Your task to perform on an android device: Send an email to 'tau.franklinbren.1654798856749@gmail.com', 'tau.doctorbrenna.1654798856749@gmail.com', 'tau.cooperbrenna.1654798856748@gmail.com' with subject: 'What is going on?' and body: 'Although it wasn't a pot of gold, Nancy was still enthralled at what she found at the end of the rainbow.' Image 0: 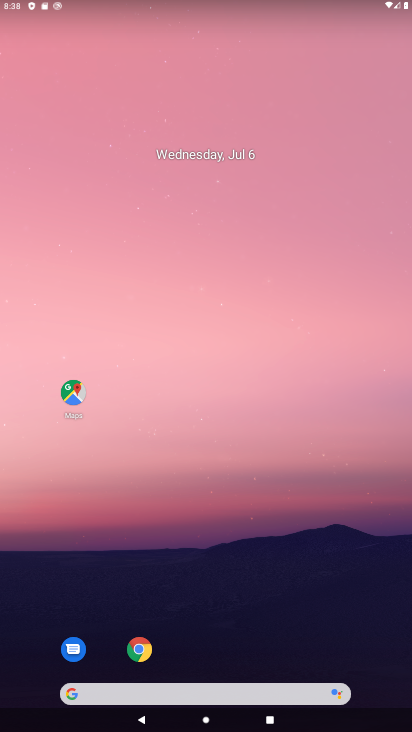
Step 0: drag from (329, 633) to (328, 69)
Your task to perform on an android device: Send an email to 'tau.franklinbren.1654798856749@gmail.com', 'tau.doctorbrenna.1654798856749@gmail.com', 'tau.cooperbrenna.1654798856748@gmail.com' with subject: 'What is going on?' and body: 'Although it wasn't a pot of gold, Nancy was still enthralled at what she found at the end of the rainbow.' Image 1: 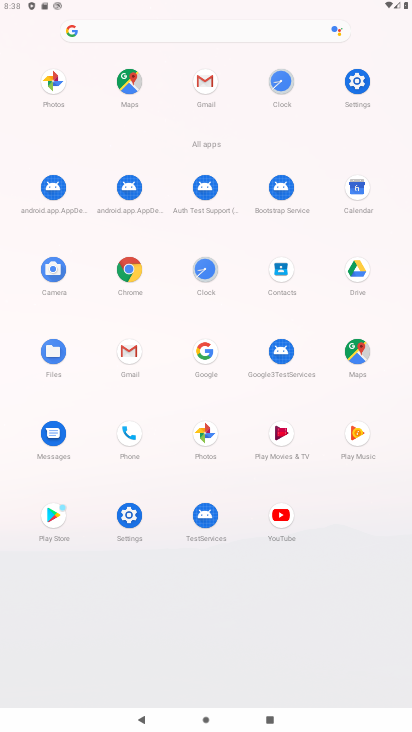
Step 1: click (207, 89)
Your task to perform on an android device: Send an email to 'tau.franklinbren.1654798856749@gmail.com', 'tau.doctorbrenna.1654798856749@gmail.com', 'tau.cooperbrenna.1654798856748@gmail.com' with subject: 'What is going on?' and body: 'Although it wasn't a pot of gold, Nancy was still enthralled at what she found at the end of the rainbow.' Image 2: 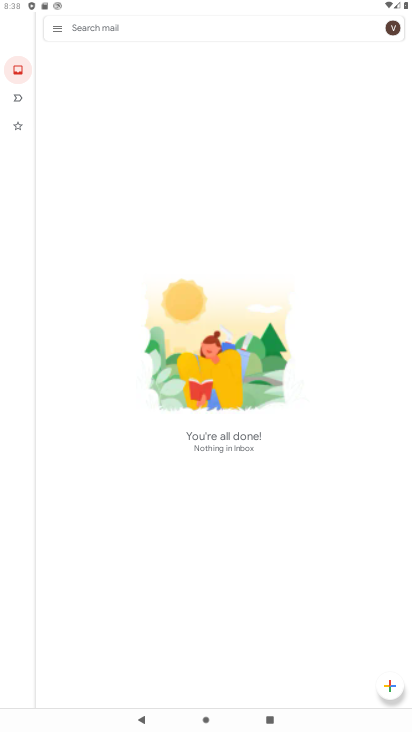
Step 2: click (82, 618)
Your task to perform on an android device: Send an email to 'tau.franklinbren.1654798856749@gmail.com', 'tau.doctorbrenna.1654798856749@gmail.com', 'tau.cooperbrenna.1654798856748@gmail.com' with subject: 'What is going on?' and body: 'Although it wasn't a pot of gold, Nancy was still enthralled at what she found at the end of the rainbow.' Image 3: 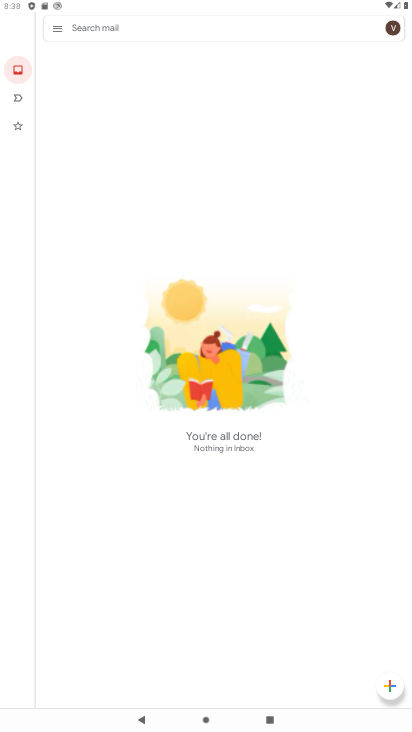
Step 3: click (396, 686)
Your task to perform on an android device: Send an email to 'tau.franklinbren.1654798856749@gmail.com', 'tau.doctorbrenna.1654798856749@gmail.com', 'tau.cooperbrenna.1654798856748@gmail.com' with subject: 'What is going on?' and body: 'Although it wasn't a pot of gold, Nancy was still enthralled at what she found at the end of the rainbow.' Image 4: 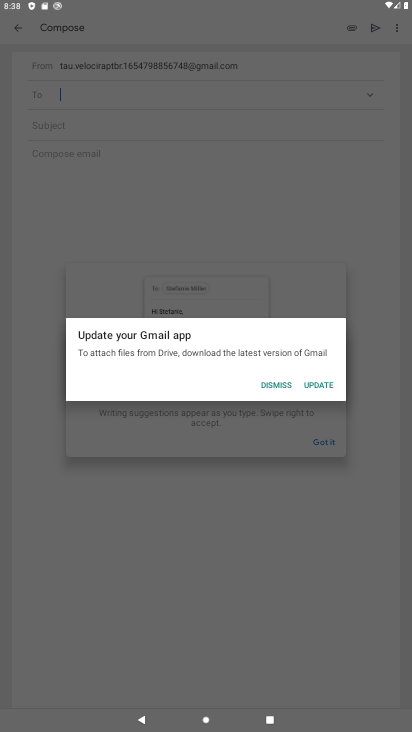
Step 4: click (282, 395)
Your task to perform on an android device: Send an email to 'tau.franklinbren.1654798856749@gmail.com', 'tau.doctorbrenna.1654798856749@gmail.com', 'tau.cooperbrenna.1654798856748@gmail.com' with subject: 'What is going on?' and body: 'Although it wasn't a pot of gold, Nancy was still enthralled at what she found at the end of the rainbow.' Image 5: 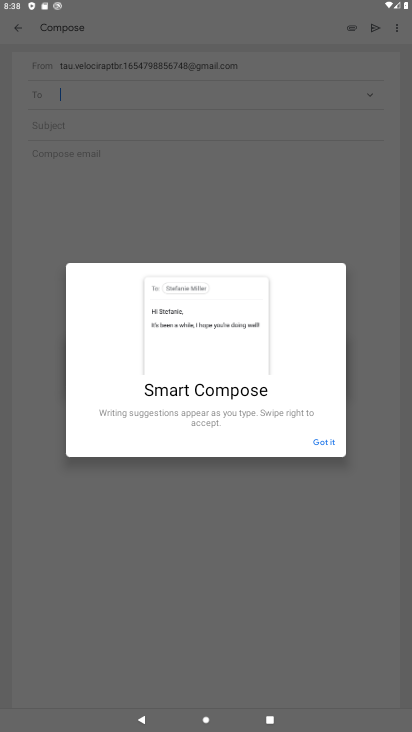
Step 5: click (326, 445)
Your task to perform on an android device: Send an email to 'tau.franklinbren.1654798856749@gmail.com', 'tau.doctorbrenna.1654798856749@gmail.com', 'tau.cooperbrenna.1654798856748@gmail.com' with subject: 'What is going on?' and body: 'Although it wasn't a pot of gold, Nancy was still enthralled at what she found at the end of the rainbow.' Image 6: 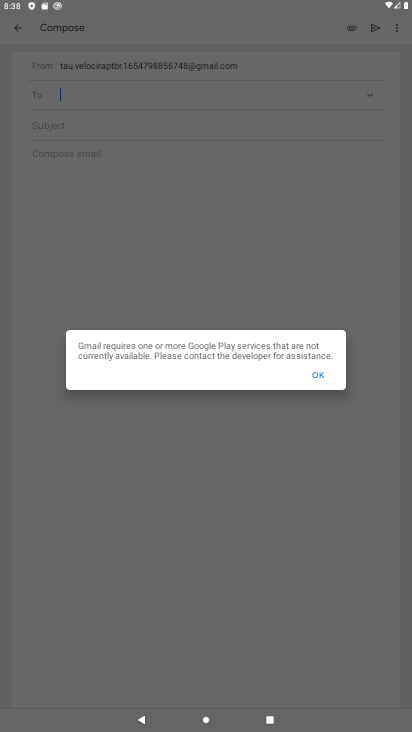
Step 6: click (325, 384)
Your task to perform on an android device: Send an email to 'tau.franklinbren.1654798856749@gmail.com', 'tau.doctorbrenna.1654798856749@gmail.com', 'tau.cooperbrenna.1654798856748@gmail.com' with subject: 'What is going on?' and body: 'Although it wasn't a pot of gold, Nancy was still enthralled at what she found at the end of the rainbow.' Image 7: 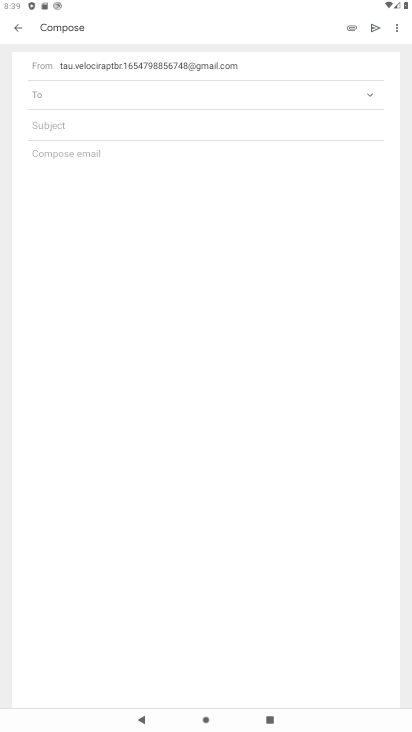
Step 7: drag from (71, 723) to (200, 686)
Your task to perform on an android device: Send an email to 'tau.franklinbren.1654798856749@gmail.com', 'tau.doctorbrenna.1654798856749@gmail.com', 'tau.cooperbrenna.1654798856748@gmail.com' with subject: 'What is going on?' and body: 'Although it wasn't a pot of gold, Nancy was still enthralled at what she found at the end of the rainbow.' Image 8: 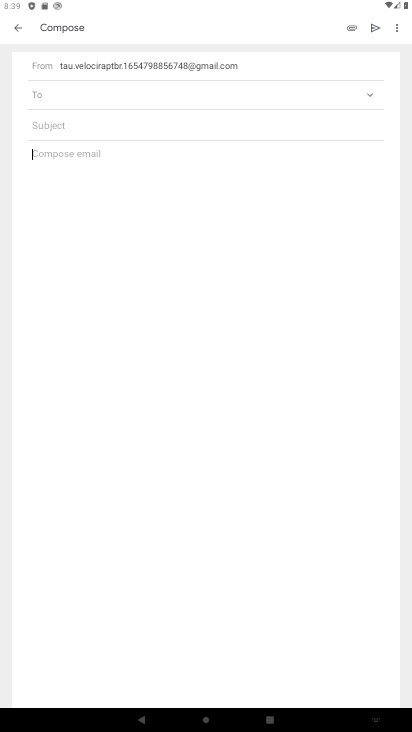
Step 8: type "tau.franklinbren.1654798856749@gmail.com"
Your task to perform on an android device: Send an email to 'tau.franklinbren.1654798856749@gmail.com', 'tau.doctorbrenna.1654798856749@gmail.com', 'tau.cooperbrenna.1654798856748@gmail.com' with subject: 'What is going on?' and body: 'Although it wasn't a pot of gold, Nancy was still enthralled at what she found at the end of the rainbow.' Image 9: 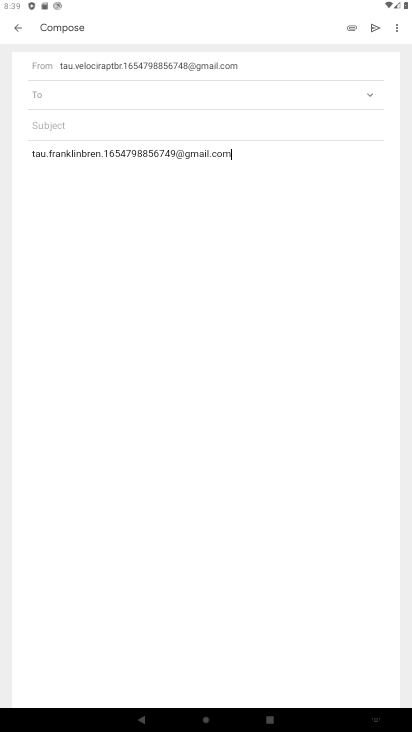
Step 9: click (21, 29)
Your task to perform on an android device: Send an email to 'tau.franklinbren.1654798856749@gmail.com', 'tau.doctorbrenna.1654798856749@gmail.com', 'tau.cooperbrenna.1654798856748@gmail.com' with subject: 'What is going on?' and body: 'Although it wasn't a pot of gold, Nancy was still enthralled at what she found at the end of the rainbow.' Image 10: 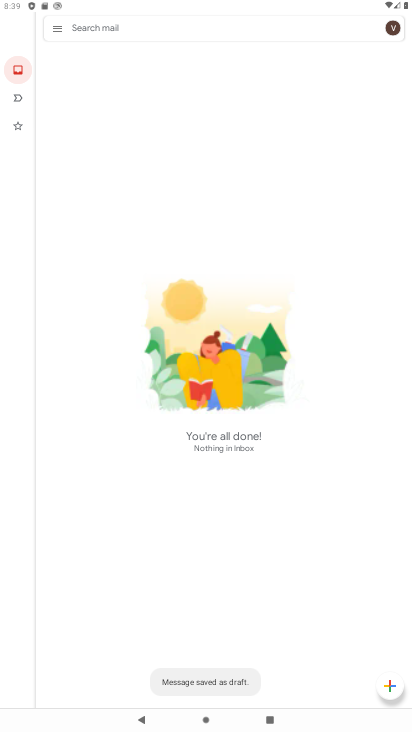
Step 10: click (372, 677)
Your task to perform on an android device: Send an email to 'tau.franklinbren.1654798856749@gmail.com', 'tau.doctorbrenna.1654798856749@gmail.com', 'tau.cooperbrenna.1654798856748@gmail.com' with subject: 'What is going on?' and body: 'Although it wasn't a pot of gold, Nancy was still enthralled at what she found at the end of the rainbow.' Image 11: 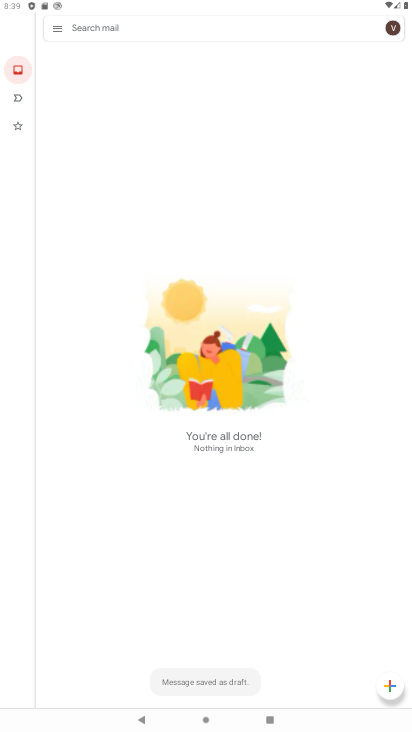
Step 11: click (386, 687)
Your task to perform on an android device: Send an email to 'tau.franklinbren.1654798856749@gmail.com', 'tau.doctorbrenna.1654798856749@gmail.com', 'tau.cooperbrenna.1654798856748@gmail.com' with subject: 'What is going on?' and body: 'Although it wasn't a pot of gold, Nancy was still enthralled at what she found at the end of the rainbow.' Image 12: 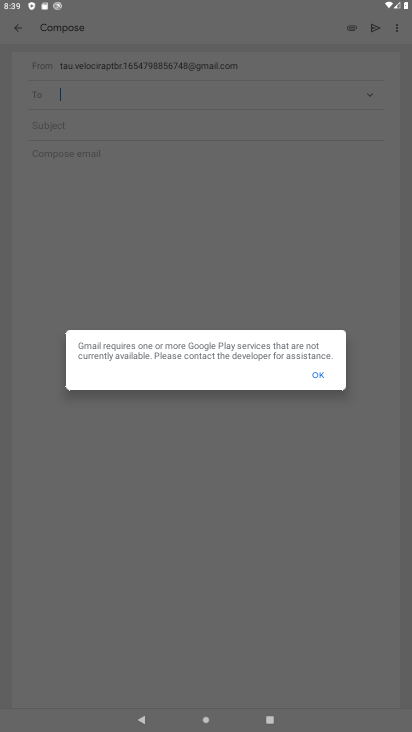
Step 12: click (317, 370)
Your task to perform on an android device: Send an email to 'tau.franklinbren.1654798856749@gmail.com', 'tau.doctorbrenna.1654798856749@gmail.com', 'tau.cooperbrenna.1654798856748@gmail.com' with subject: 'What is going on?' and body: 'Although it wasn't a pot of gold, Nancy was still enthralled at what she found at the end of the rainbow.' Image 13: 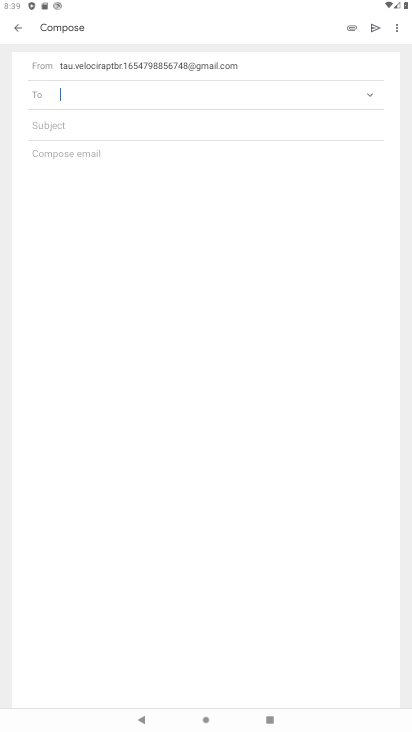
Step 13: click (180, 86)
Your task to perform on an android device: Send an email to 'tau.franklinbren.1654798856749@gmail.com', 'tau.doctorbrenna.1654798856749@gmail.com', 'tau.cooperbrenna.1654798856748@gmail.com' with subject: 'What is going on?' and body: 'Although it wasn't a pot of gold, Nancy was still enthralled at what she found at the end of the rainbow.' Image 14: 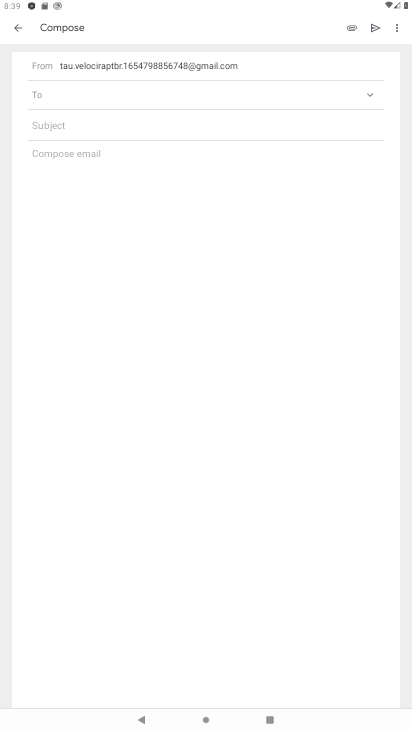
Step 14: click (180, 86)
Your task to perform on an android device: Send an email to 'tau.franklinbren.1654798856749@gmail.com', 'tau.doctorbrenna.1654798856749@gmail.com', 'tau.cooperbrenna.1654798856748@gmail.com' with subject: 'What is going on?' and body: 'Although it wasn't a pot of gold, Nancy was still enthralled at what she found at the end of the rainbow.' Image 15: 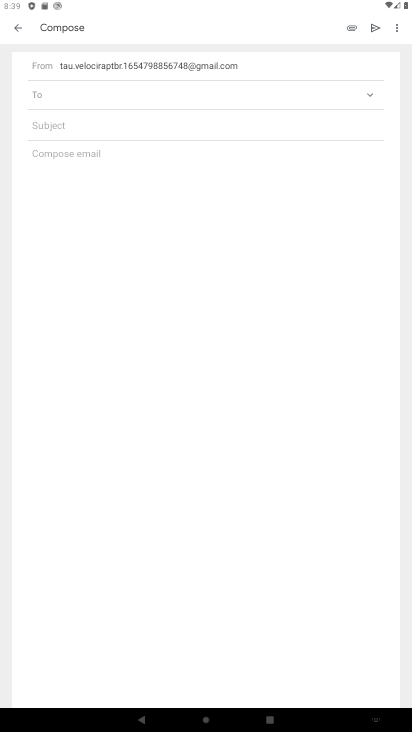
Step 15: type "tau.franklinbren.1654798856749@gmail.com"
Your task to perform on an android device: Send an email to 'tau.franklinbren.1654798856749@gmail.com', 'tau.doctorbrenna.1654798856749@gmail.com', 'tau.cooperbrenna.1654798856748@gmail.com' with subject: 'What is going on?' and body: 'Although it wasn't a pot of gold, Nancy was still enthralled at what she found at the end of the rainbow.' Image 16: 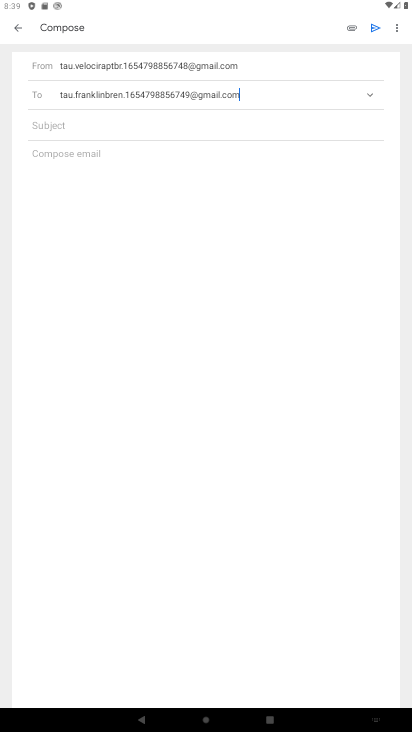
Step 16: type ""
Your task to perform on an android device: Send an email to 'tau.franklinbren.1654798856749@gmail.com', 'tau.doctorbrenna.1654798856749@gmail.com', 'tau.cooperbrenna.1654798856748@gmail.com' with subject: 'What is going on?' and body: 'Although it wasn't a pot of gold, Nancy was still enthralled at what she found at the end of the rainbow.' Image 17: 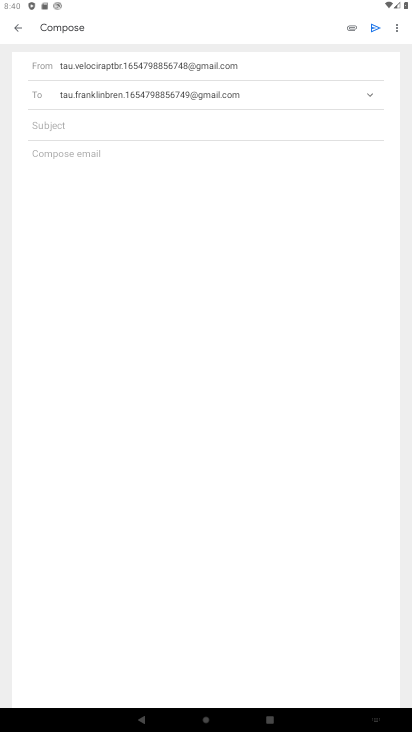
Step 17: click (368, 89)
Your task to perform on an android device: Send an email to 'tau.franklinbren.1654798856749@gmail.com', 'tau.doctorbrenna.1654798856749@gmail.com', 'tau.cooperbrenna.1654798856748@gmail.com' with subject: 'What is going on?' and body: 'Although it wasn't a pot of gold, Nancy was still enthralled at what she found at the end of the rainbow.' Image 18: 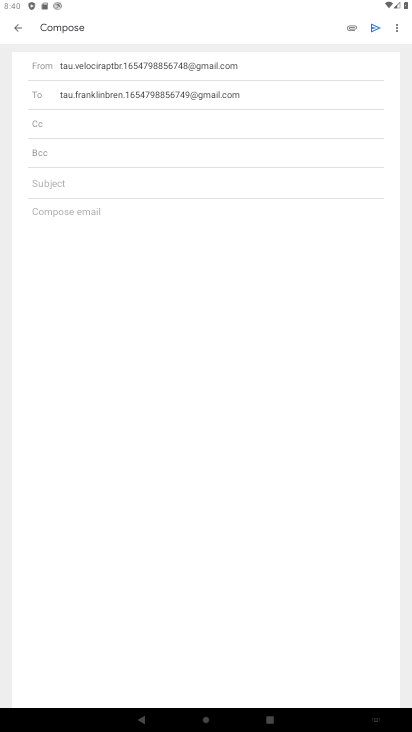
Step 18: click (327, 123)
Your task to perform on an android device: Send an email to 'tau.franklinbren.1654798856749@gmail.com', 'tau.doctorbrenna.1654798856749@gmail.com', 'tau.cooperbrenna.1654798856748@gmail.com' with subject: 'What is going on?' and body: 'Although it wasn't a pot of gold, Nancy was still enthralled at what she found at the end of the rainbow.' Image 19: 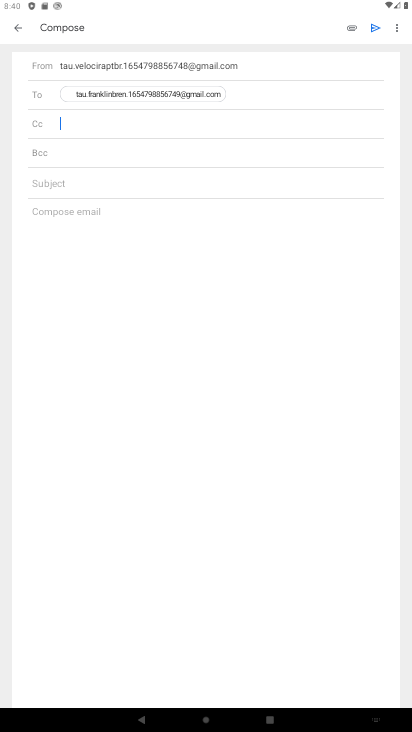
Step 19: type "tau.doctorbrenna.1654798856749@gmail.com"
Your task to perform on an android device: Send an email to 'tau.franklinbren.1654798856749@gmail.com', 'tau.doctorbrenna.1654798856749@gmail.com', 'tau.cooperbrenna.1654798856748@gmail.com' with subject: 'What is going on?' and body: 'Although it wasn't a pot of gold, Nancy was still enthralled at what she found at the end of the rainbow.' Image 20: 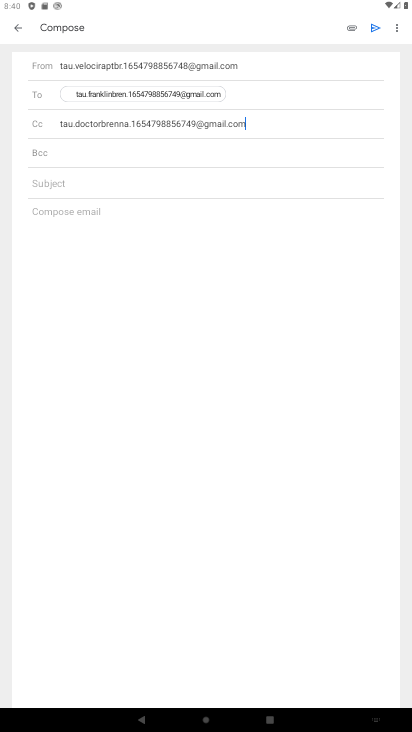
Step 20: type ""
Your task to perform on an android device: Send an email to 'tau.franklinbren.1654798856749@gmail.com', 'tau.doctorbrenna.1654798856749@gmail.com', 'tau.cooperbrenna.1654798856748@gmail.com' with subject: 'What is going on?' and body: 'Although it wasn't a pot of gold, Nancy was still enthralled at what she found at the end of the rainbow.' Image 21: 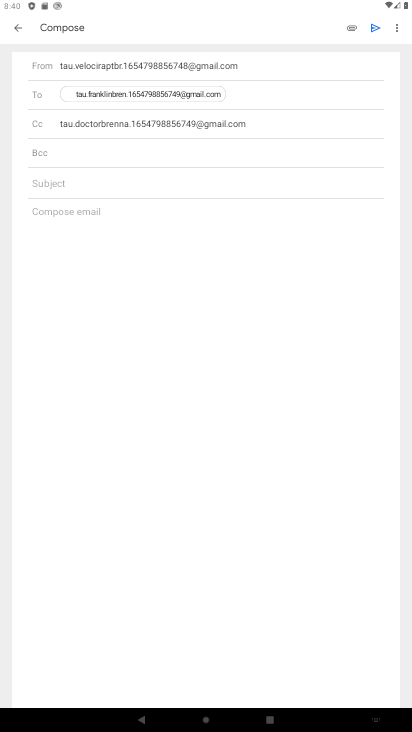
Step 21: click (105, 154)
Your task to perform on an android device: Send an email to 'tau.franklinbren.1654798856749@gmail.com', 'tau.doctorbrenna.1654798856749@gmail.com', 'tau.cooperbrenna.1654798856748@gmail.com' with subject: 'What is going on?' and body: 'Although it wasn't a pot of gold, Nancy was still enthralled at what she found at the end of the rainbow.' Image 22: 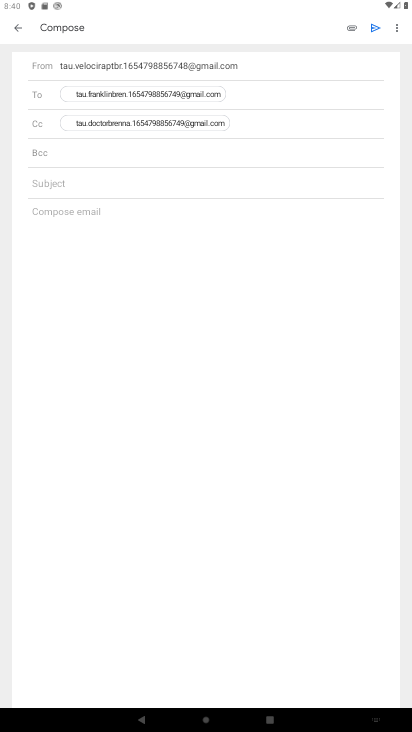
Step 22: type "tau.cooperbrenna.1654798856748@gmail.com"
Your task to perform on an android device: Send an email to 'tau.franklinbren.1654798856749@gmail.com', 'tau.doctorbrenna.1654798856749@gmail.com', 'tau.cooperbrenna.1654798856748@gmail.com' with subject: 'What is going on?' and body: 'Although it wasn't a pot of gold, Nancy was still enthralled at what she found at the end of the rainbow.' Image 23: 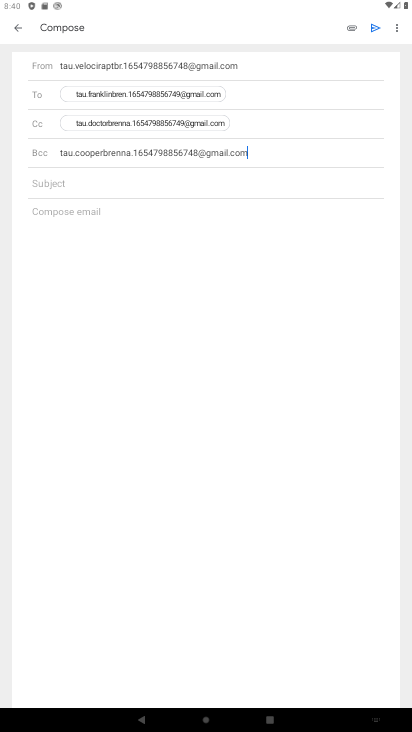
Step 23: type ""
Your task to perform on an android device: Send an email to 'tau.franklinbren.1654798856749@gmail.com', 'tau.doctorbrenna.1654798856749@gmail.com', 'tau.cooperbrenna.1654798856748@gmail.com' with subject: 'What is going on?' and body: 'Although it wasn't a pot of gold, Nancy was still enthralled at what she found at the end of the rainbow.' Image 24: 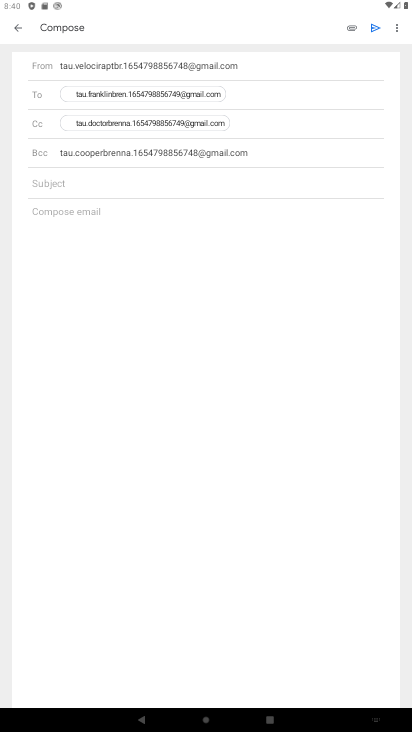
Step 24: click (107, 186)
Your task to perform on an android device: Send an email to 'tau.franklinbren.1654798856749@gmail.com', 'tau.doctorbrenna.1654798856749@gmail.com', 'tau.cooperbrenna.1654798856748@gmail.com' with subject: 'What is going on?' and body: 'Although it wasn't a pot of gold, Nancy was still enthralled at what she found at the end of the rainbow.' Image 25: 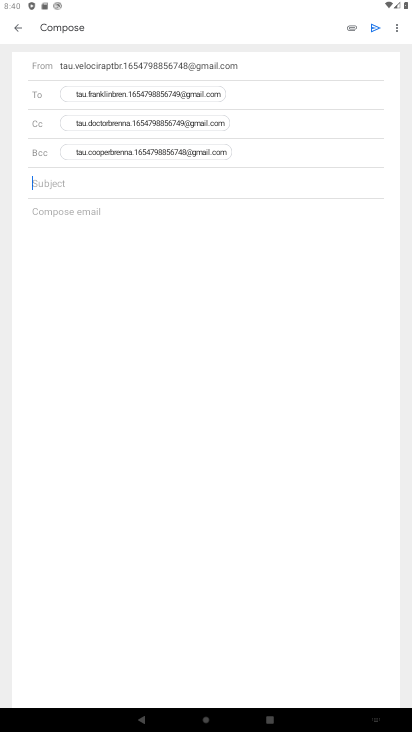
Step 25: type "What is going on?"
Your task to perform on an android device: Send an email to 'tau.franklinbren.1654798856749@gmail.com', 'tau.doctorbrenna.1654798856749@gmail.com', 'tau.cooperbrenna.1654798856748@gmail.com' with subject: 'What is going on?' and body: 'Although it wasn't a pot of gold, Nancy was still enthralled at what she found at the end of the rainbow.' Image 26: 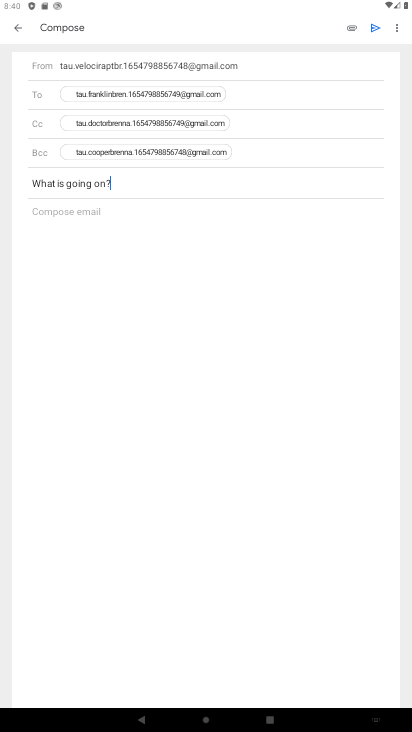
Step 26: type ""
Your task to perform on an android device: Send an email to 'tau.franklinbren.1654798856749@gmail.com', 'tau.doctorbrenna.1654798856749@gmail.com', 'tau.cooperbrenna.1654798856748@gmail.com' with subject: 'What is going on?' and body: 'Although it wasn't a pot of gold, Nancy was still enthralled at what she found at the end of the rainbow.' Image 27: 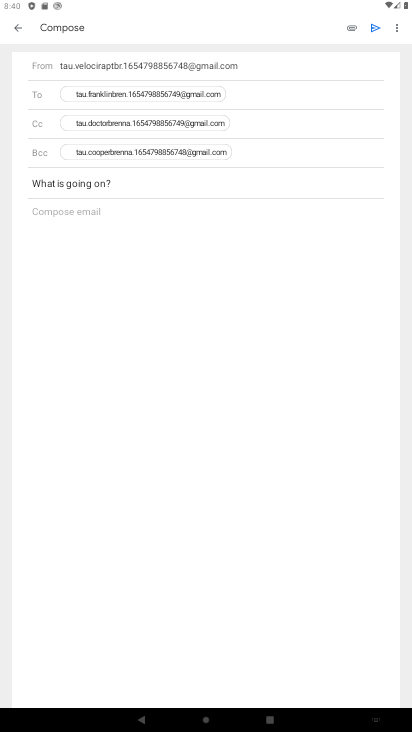
Step 27: type "Although it wasn't a pot of gold, Nancy was still enthralled at what she found at the end of the rainbow.'"
Your task to perform on an android device: Send an email to 'tau.franklinbren.1654798856749@gmail.com', 'tau.doctorbrenna.1654798856749@gmail.com', 'tau.cooperbrenna.1654798856748@gmail.com' with subject: 'What is going on?' and body: 'Although it wasn't a pot of gold, Nancy was still enthralled at what she found at the end of the rainbow.' Image 28: 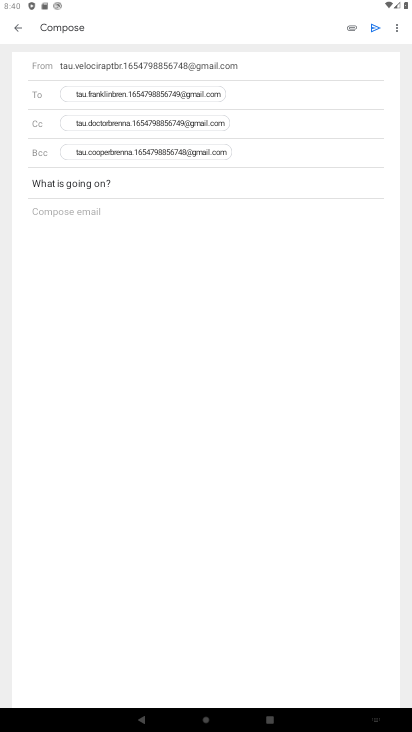
Step 28: click (92, 342)
Your task to perform on an android device: Send an email to 'tau.franklinbren.1654798856749@gmail.com', 'tau.doctorbrenna.1654798856749@gmail.com', 'tau.cooperbrenna.1654798856748@gmail.com' with subject: 'What is going on?' and body: 'Although it wasn't a pot of gold, Nancy was still enthralled at what she found at the end of the rainbow.' Image 29: 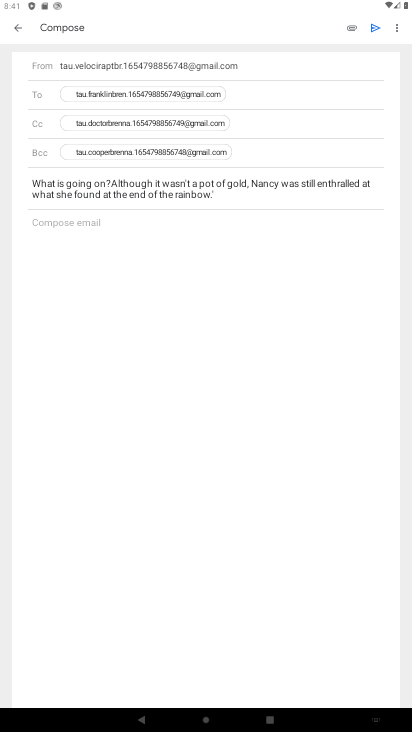
Step 29: click (89, 212)
Your task to perform on an android device: Send an email to 'tau.franklinbren.1654798856749@gmail.com', 'tau.doctorbrenna.1654798856749@gmail.com', 'tau.cooperbrenna.1654798856748@gmail.com' with subject: 'What is going on?' and body: 'Although it wasn't a pot of gold, Nancy was still enthralled at what she found at the end of the rainbow.' Image 30: 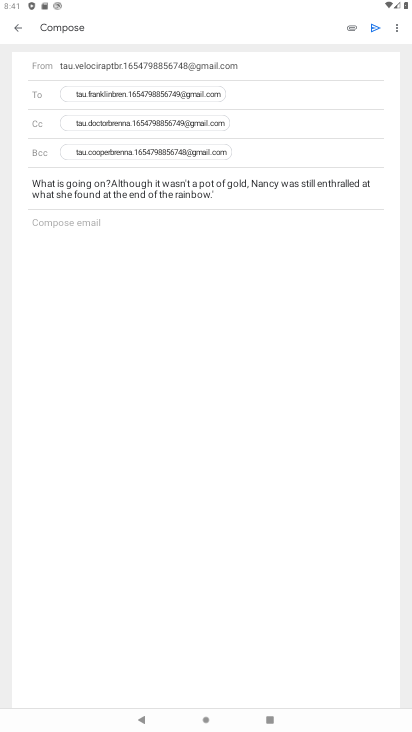
Step 30: drag from (111, 177) to (187, 226)
Your task to perform on an android device: Send an email to 'tau.franklinbren.1654798856749@gmail.com', 'tau.doctorbrenna.1654798856749@gmail.com', 'tau.cooperbrenna.1654798856748@gmail.com' with subject: 'What is going on?' and body: 'Although it wasn't a pot of gold, Nancy was still enthralled at what she found at the end of the rainbow.' Image 31: 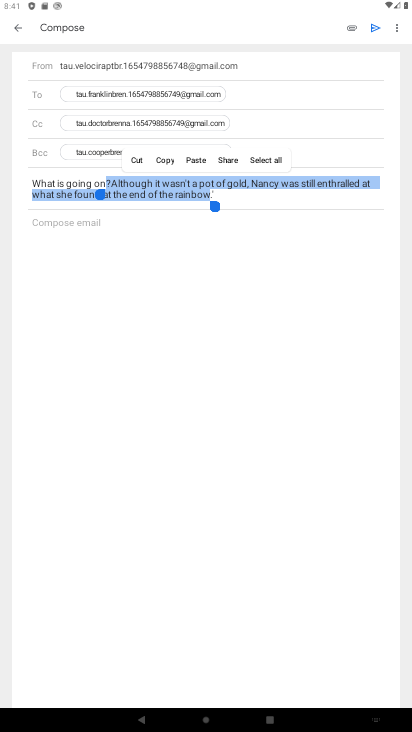
Step 31: click (134, 159)
Your task to perform on an android device: Send an email to 'tau.franklinbren.1654798856749@gmail.com', 'tau.doctorbrenna.1654798856749@gmail.com', 'tau.cooperbrenna.1654798856748@gmail.com' with subject: 'What is going on?' and body: 'Although it wasn't a pot of gold, Nancy was still enthralled at what she found at the end of the rainbow.' Image 32: 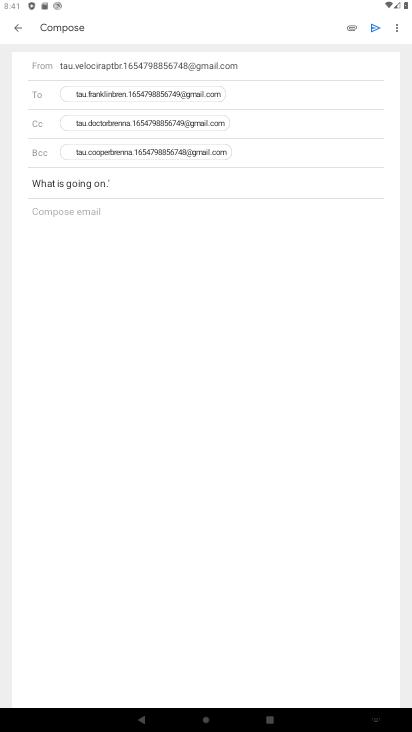
Step 32: click (105, 177)
Your task to perform on an android device: Send an email to 'tau.franklinbren.1654798856749@gmail.com', 'tau.doctorbrenna.1654798856749@gmail.com', 'tau.cooperbrenna.1654798856748@gmail.com' with subject: 'What is going on?' and body: 'Although it wasn't a pot of gold, Nancy was still enthralled at what she found at the end of the rainbow.' Image 33: 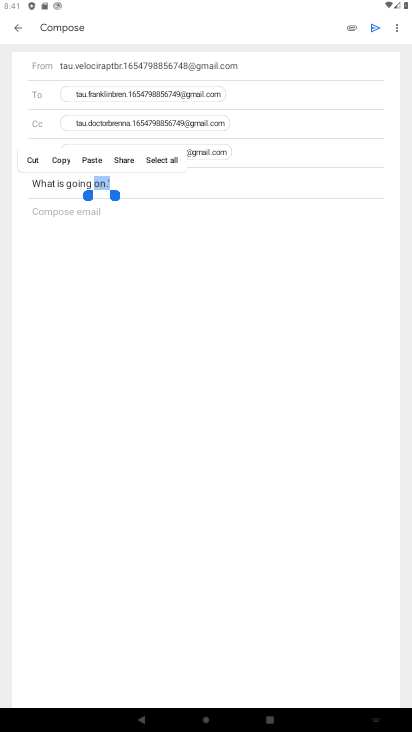
Step 33: click (33, 156)
Your task to perform on an android device: Send an email to 'tau.franklinbren.1654798856749@gmail.com', 'tau.doctorbrenna.1654798856749@gmail.com', 'tau.cooperbrenna.1654798856748@gmail.com' with subject: 'What is going on?' and body: 'Although it wasn't a pot of gold, Nancy was still enthralled at what she found at the end of the rainbow.' Image 34: 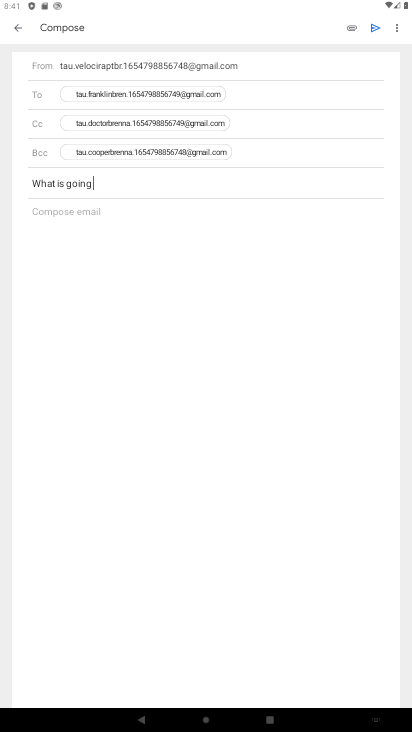
Step 34: type " on"
Your task to perform on an android device: Send an email to 'tau.franklinbren.1654798856749@gmail.com', 'tau.doctorbrenna.1654798856749@gmail.com', 'tau.cooperbrenna.1654798856748@gmail.com' with subject: 'What is going on?' and body: 'Although it wasn't a pot of gold, Nancy was still enthralled at what she found at the end of the rainbow.' Image 35: 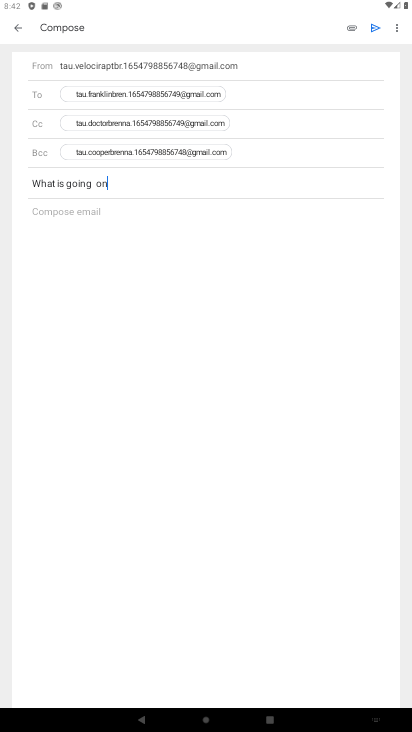
Step 35: type "?"
Your task to perform on an android device: Send an email to 'tau.franklinbren.1654798856749@gmail.com', 'tau.doctorbrenna.1654798856749@gmail.com', 'tau.cooperbrenna.1654798856748@gmail.com' with subject: 'What is going on?' and body: 'Although it wasn't a pot of gold, Nancy was still enthralled at what she found at the end of the rainbow.' Image 36: 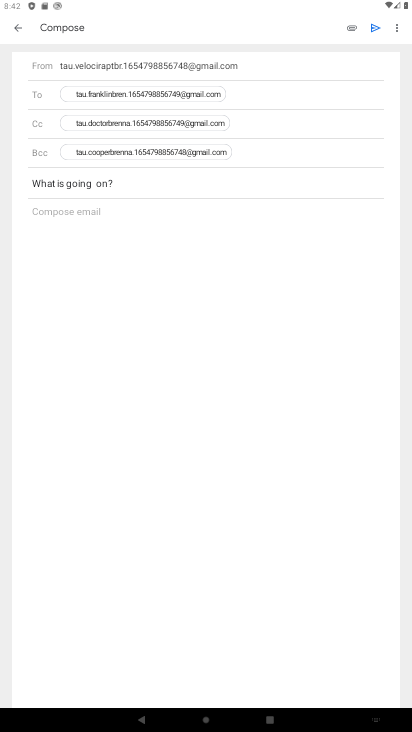
Step 36: click (175, 243)
Your task to perform on an android device: Send an email to 'tau.franklinbren.1654798856749@gmail.com', 'tau.doctorbrenna.1654798856749@gmail.com', 'tau.cooperbrenna.1654798856748@gmail.com' with subject: 'What is going on?' and body: 'Although it wasn't a pot of gold, Nancy was still enthralled at what she found at the end of the rainbow.' Image 37: 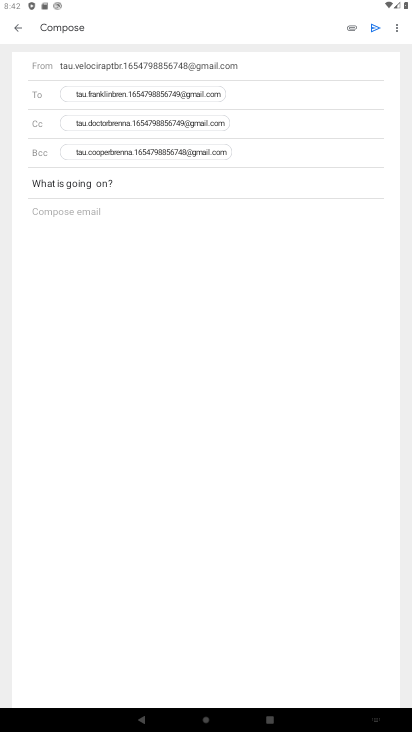
Step 37: click (175, 243)
Your task to perform on an android device: Send an email to 'tau.franklinbren.1654798856749@gmail.com', 'tau.doctorbrenna.1654798856749@gmail.com', 'tau.cooperbrenna.1654798856748@gmail.com' with subject: 'What is going on?' and body: 'Although it wasn't a pot of gold, Nancy was still enthralled at what she found at the end of the rainbow.' Image 38: 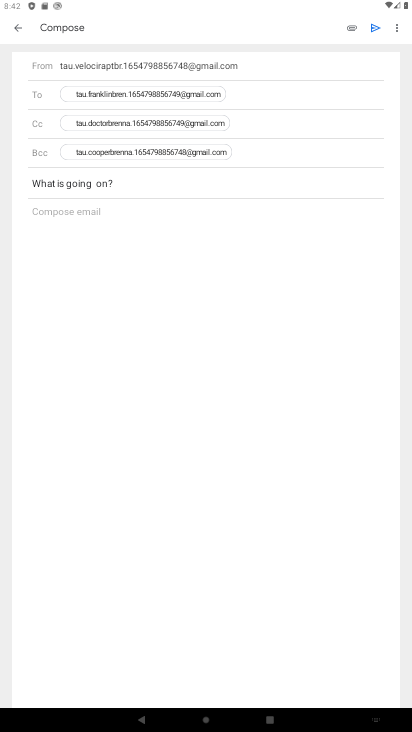
Step 38: click (222, 333)
Your task to perform on an android device: Send an email to 'tau.franklinbren.1654798856749@gmail.com', 'tau.doctorbrenna.1654798856749@gmail.com', 'tau.cooperbrenna.1654798856748@gmail.com' with subject: 'What is going on?' and body: 'Although it wasn't a pot of gold, Nancy was still enthralled at what she found at the end of the rainbow.' Image 39: 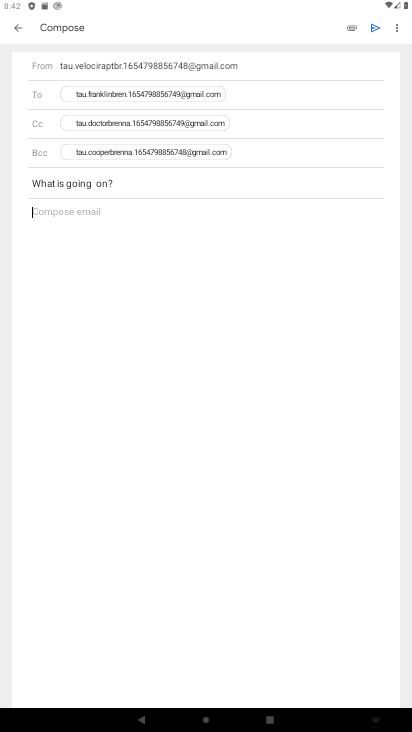
Step 39: type "Although it wasn't a pot of gold, Nancy was still enthralled at what she found at the end of the rainbow.'"
Your task to perform on an android device: Send an email to 'tau.franklinbren.1654798856749@gmail.com', 'tau.doctorbrenna.1654798856749@gmail.com', 'tau.cooperbrenna.1654798856748@gmail.com' with subject: 'What is going on?' and body: 'Although it wasn't a pot of gold, Nancy was still enthralled at what she found at the end of the rainbow.' Image 40: 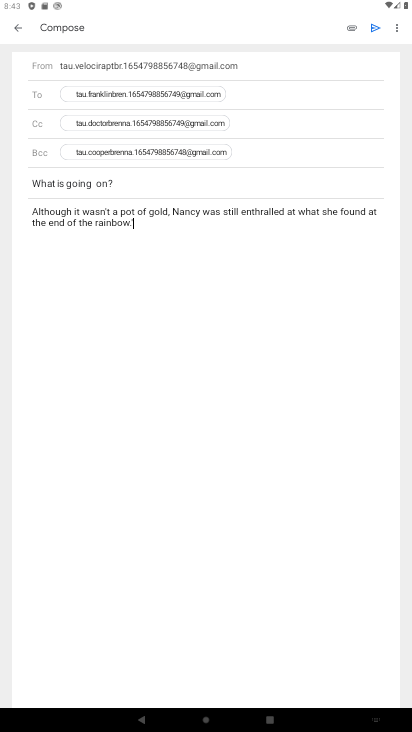
Step 40: click (371, 29)
Your task to perform on an android device: Send an email to 'tau.franklinbren.1654798856749@gmail.com', 'tau.doctorbrenna.1654798856749@gmail.com', 'tau.cooperbrenna.1654798856748@gmail.com' with subject: 'What is going on?' and body: 'Although it wasn't a pot of gold, Nancy was still enthralled at what she found at the end of the rainbow.' Image 41: 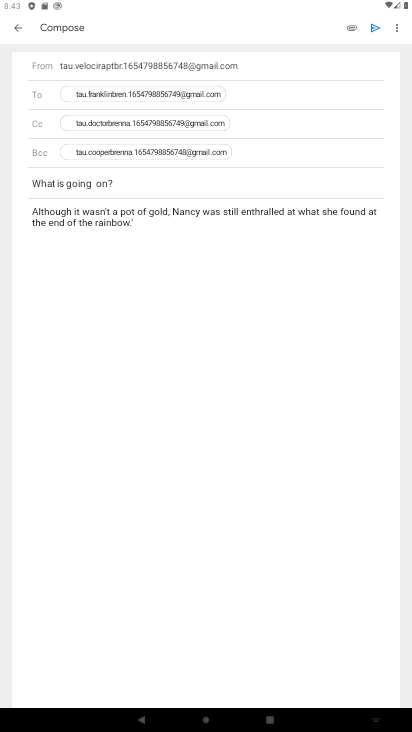
Step 41: click (373, 30)
Your task to perform on an android device: Send an email to 'tau.franklinbren.1654798856749@gmail.com', 'tau.doctorbrenna.1654798856749@gmail.com', 'tau.cooperbrenna.1654798856748@gmail.com' with subject: 'What is going on?' and body: 'Although it wasn't a pot of gold, Nancy was still enthralled at what she found at the end of the rainbow.' Image 42: 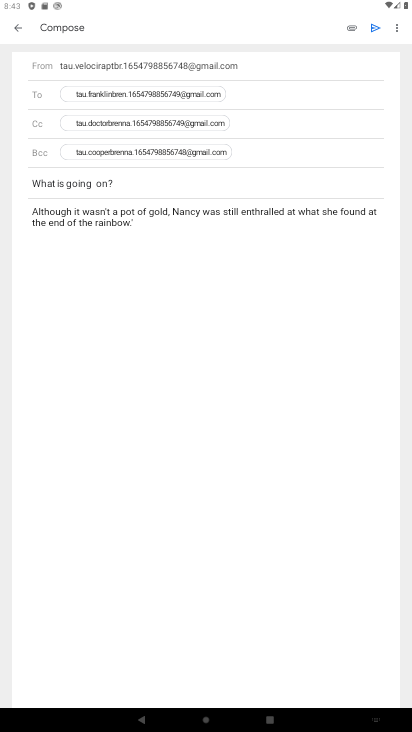
Step 42: task complete